Your task to perform on an android device: open wifi settings Image 0: 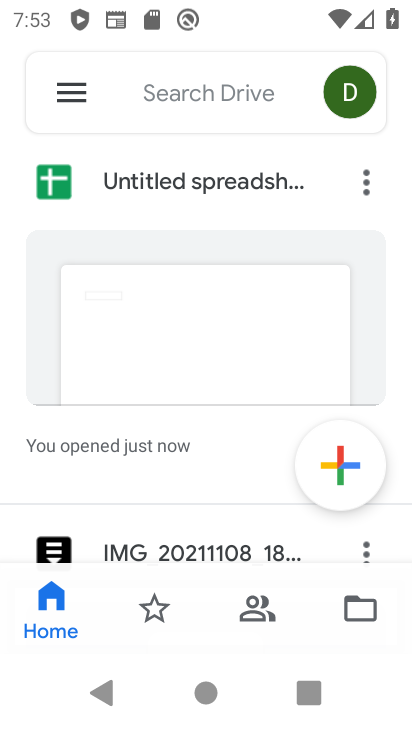
Step 0: press home button
Your task to perform on an android device: open wifi settings Image 1: 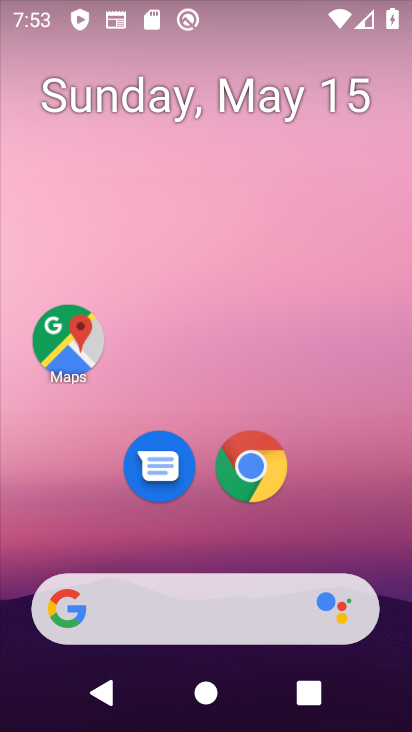
Step 1: drag from (185, 553) to (200, 46)
Your task to perform on an android device: open wifi settings Image 2: 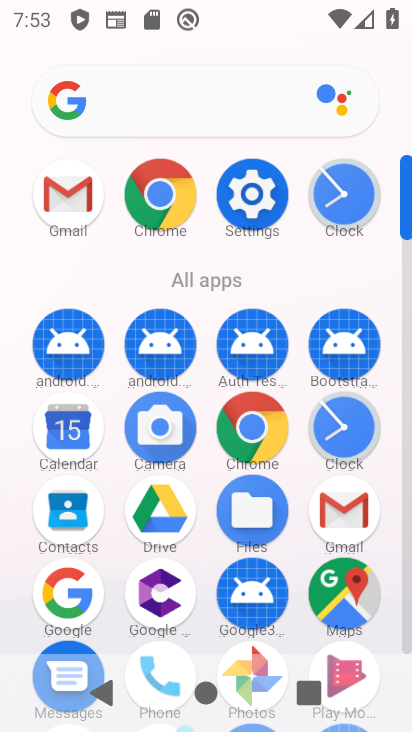
Step 2: click (239, 200)
Your task to perform on an android device: open wifi settings Image 3: 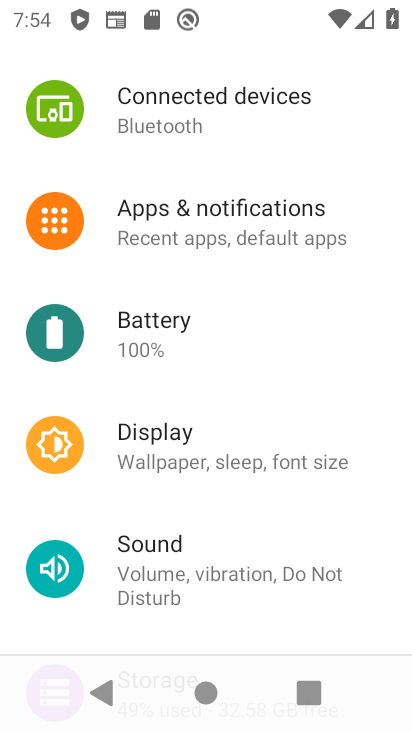
Step 3: drag from (0, 223) to (35, 426)
Your task to perform on an android device: open wifi settings Image 4: 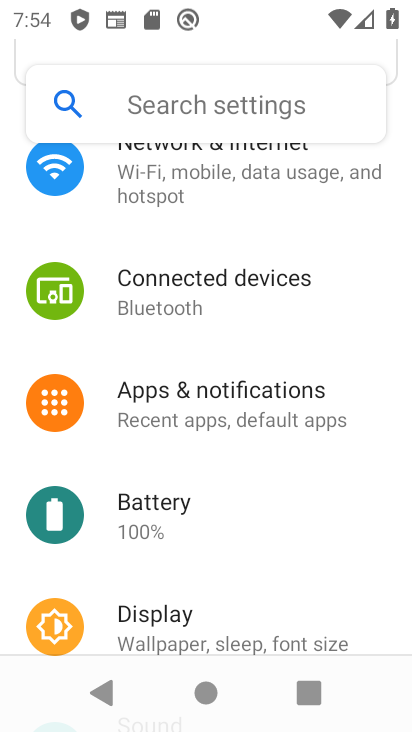
Step 4: click (89, 193)
Your task to perform on an android device: open wifi settings Image 5: 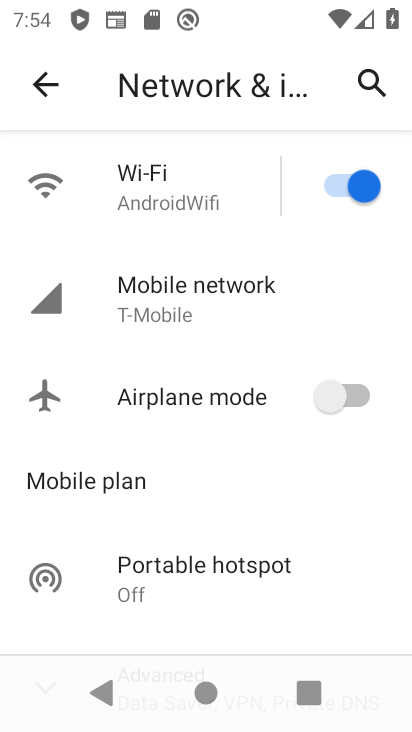
Step 5: click (180, 193)
Your task to perform on an android device: open wifi settings Image 6: 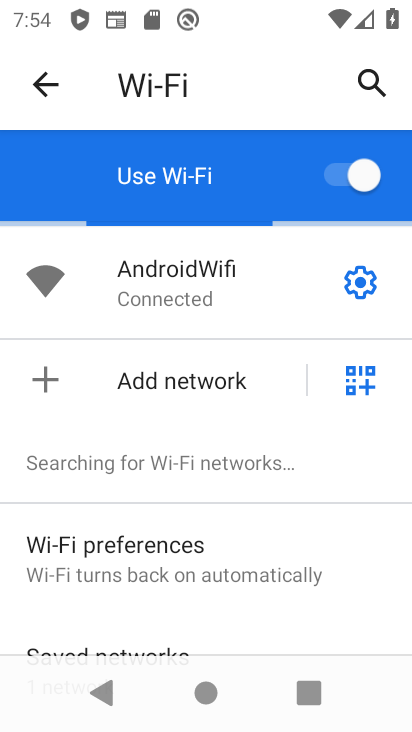
Step 6: task complete